Your task to perform on an android device: Go to Yahoo.com Image 0: 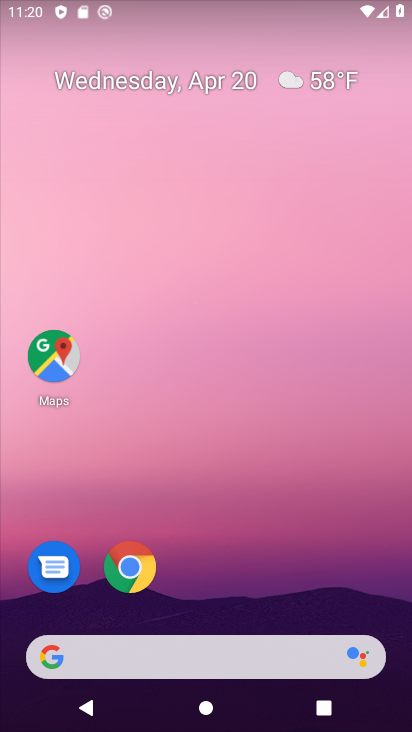
Step 0: click (151, 582)
Your task to perform on an android device: Go to Yahoo.com Image 1: 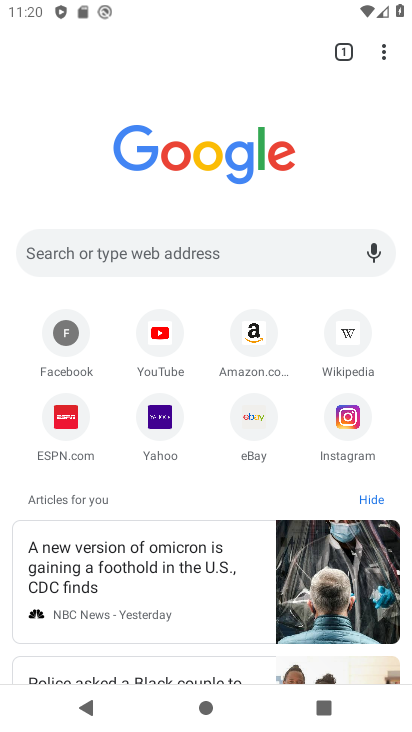
Step 1: click (161, 435)
Your task to perform on an android device: Go to Yahoo.com Image 2: 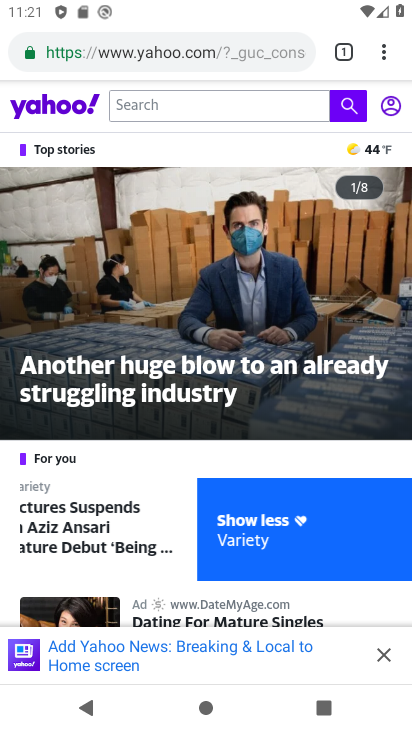
Step 2: task complete